Your task to perform on an android device: Toggle the flashlight Image 0: 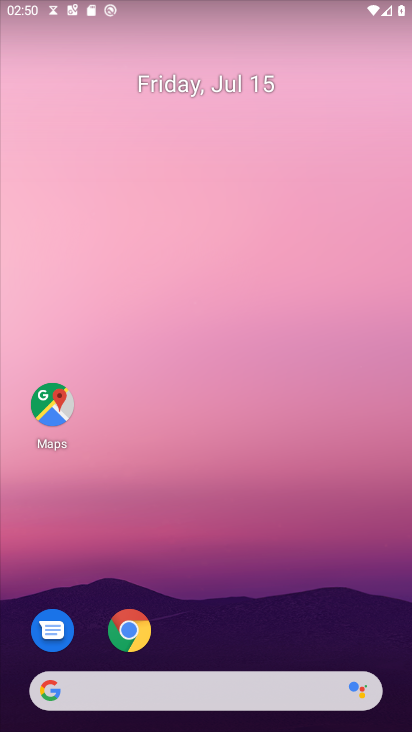
Step 0: drag from (269, 571) to (379, 1)
Your task to perform on an android device: Toggle the flashlight Image 1: 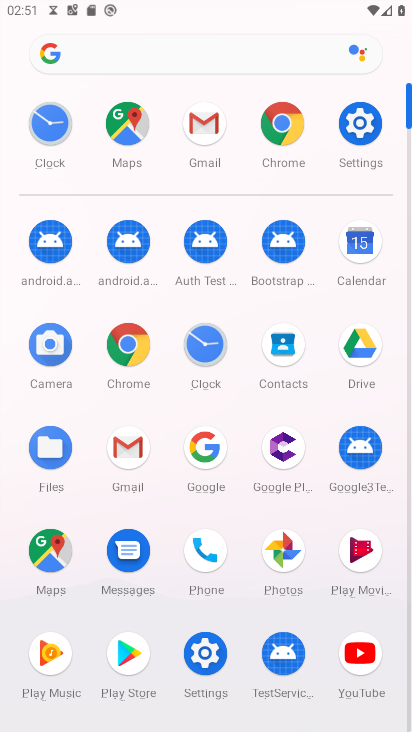
Step 1: click (357, 130)
Your task to perform on an android device: Toggle the flashlight Image 2: 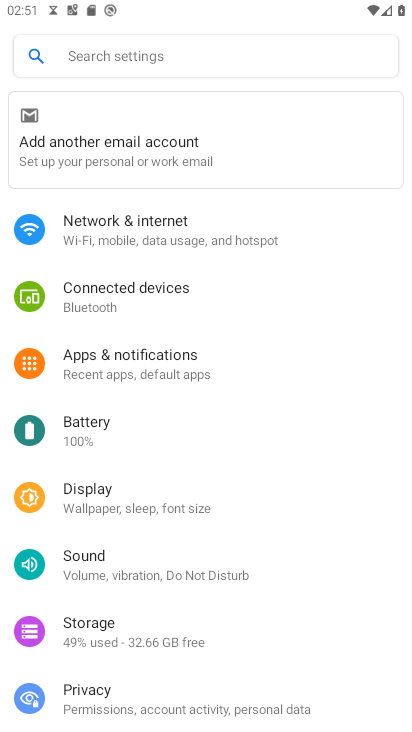
Step 2: task complete